Your task to perform on an android device: check data usage Image 0: 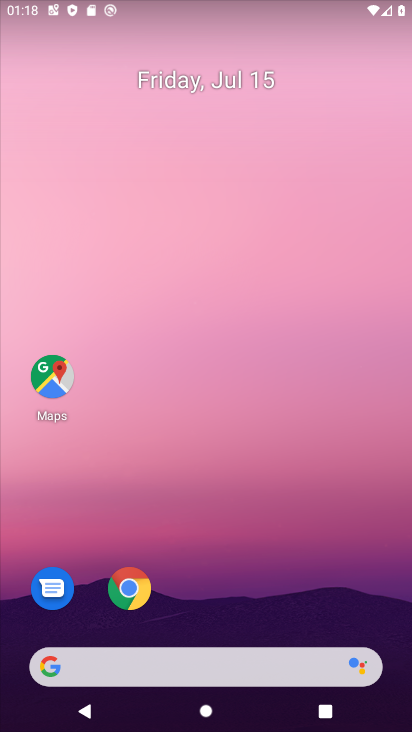
Step 0: drag from (373, 610) to (306, 55)
Your task to perform on an android device: check data usage Image 1: 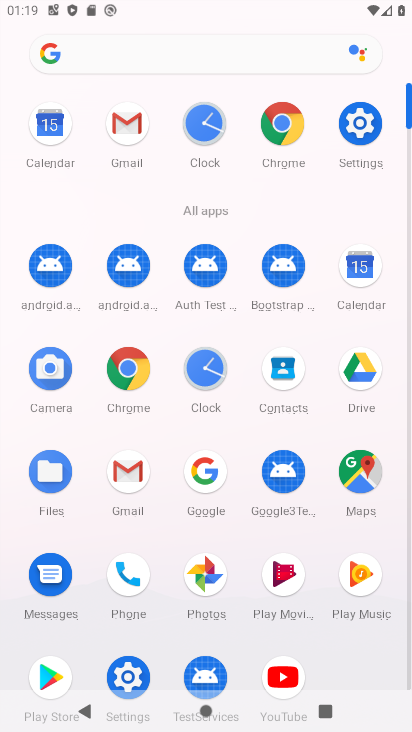
Step 1: click (122, 680)
Your task to perform on an android device: check data usage Image 2: 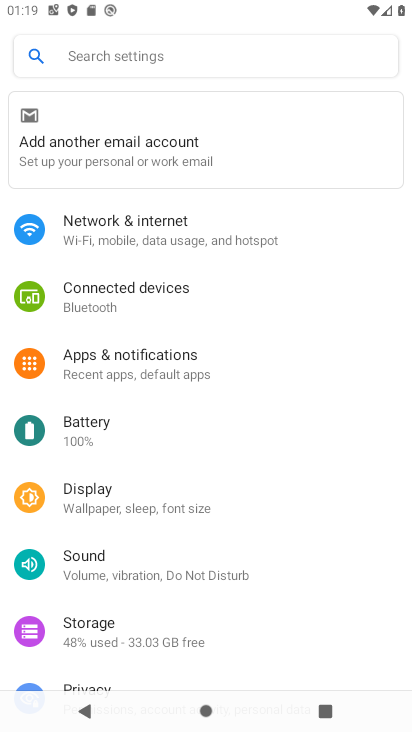
Step 2: click (114, 224)
Your task to perform on an android device: check data usage Image 3: 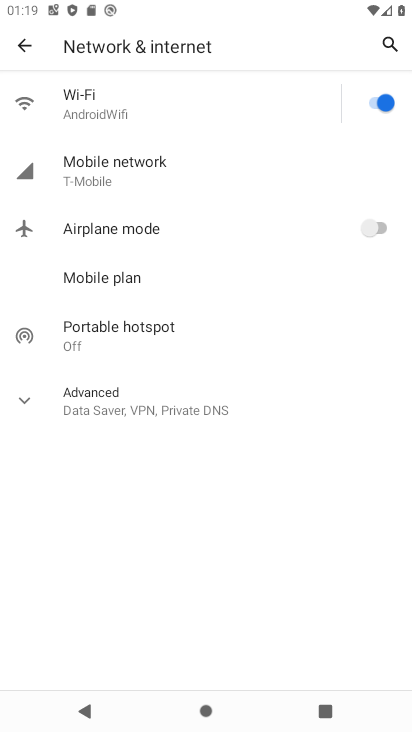
Step 3: click (102, 168)
Your task to perform on an android device: check data usage Image 4: 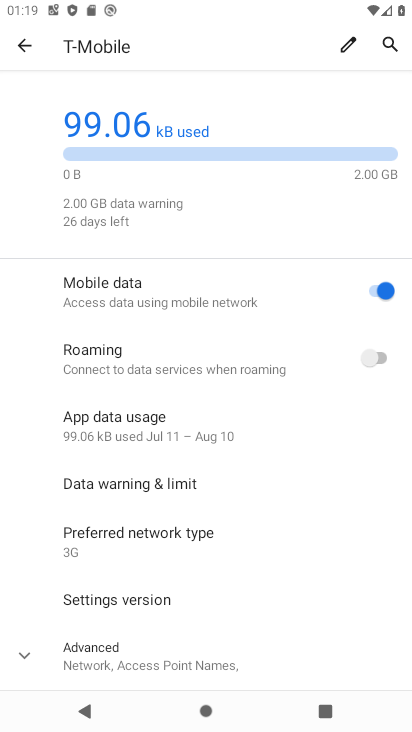
Step 4: task complete